Your task to perform on an android device: When is my next meeting? Image 0: 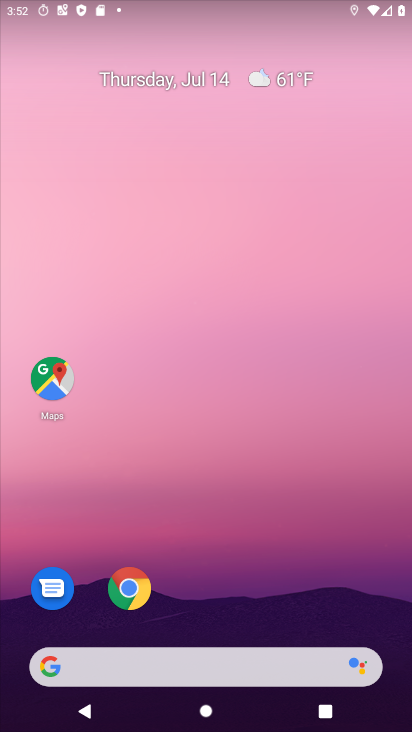
Step 0: drag from (249, 673) to (212, 119)
Your task to perform on an android device: When is my next meeting? Image 1: 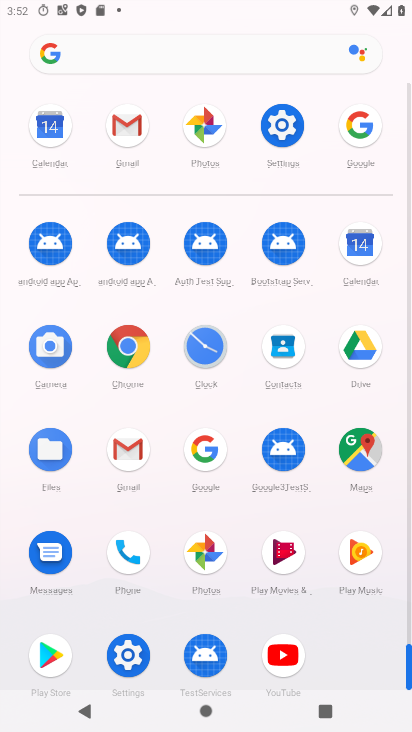
Step 1: click (360, 244)
Your task to perform on an android device: When is my next meeting? Image 2: 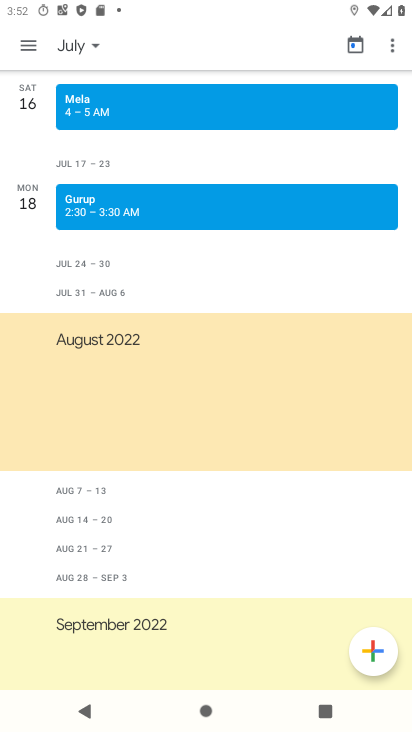
Step 2: click (353, 41)
Your task to perform on an android device: When is my next meeting? Image 3: 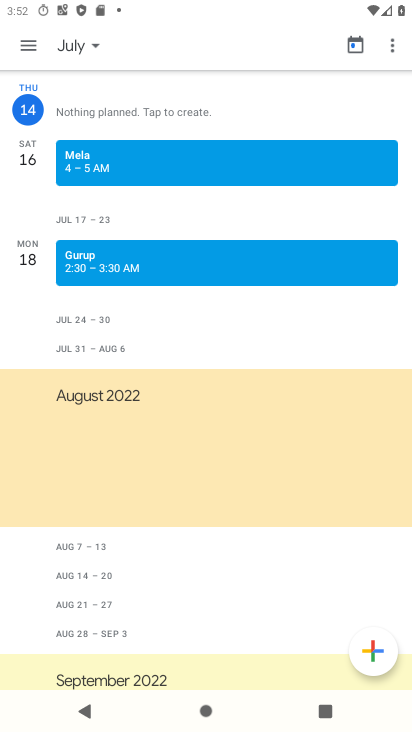
Step 3: click (90, 52)
Your task to perform on an android device: When is my next meeting? Image 4: 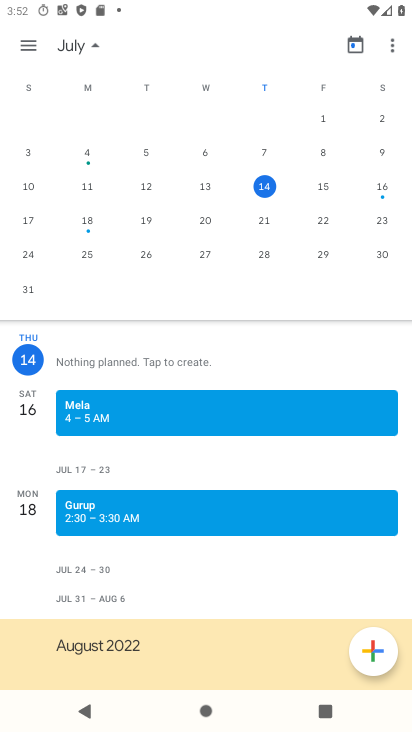
Step 4: click (379, 187)
Your task to perform on an android device: When is my next meeting? Image 5: 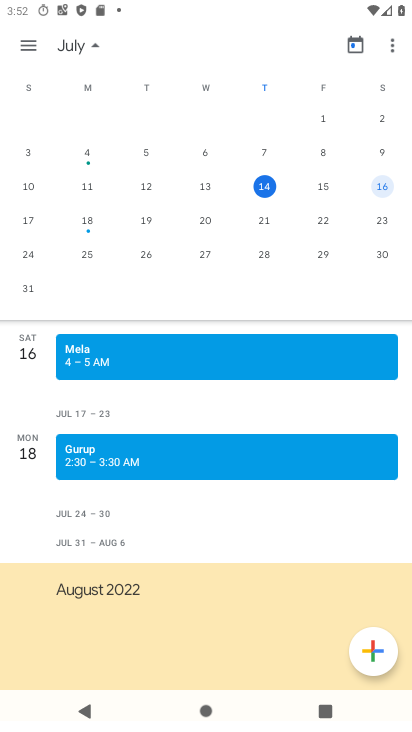
Step 5: click (25, 48)
Your task to perform on an android device: When is my next meeting? Image 6: 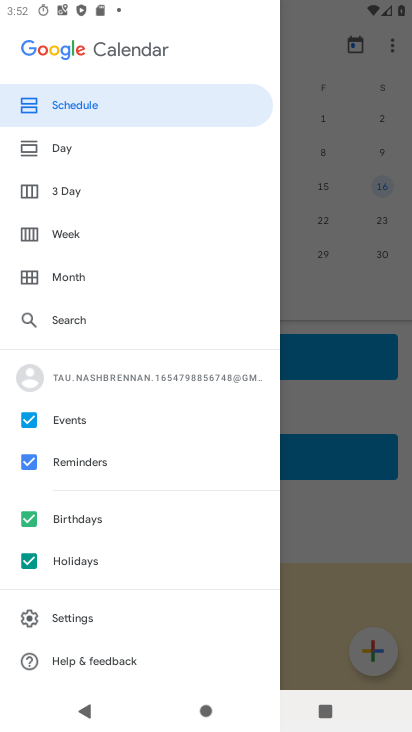
Step 6: click (82, 110)
Your task to perform on an android device: When is my next meeting? Image 7: 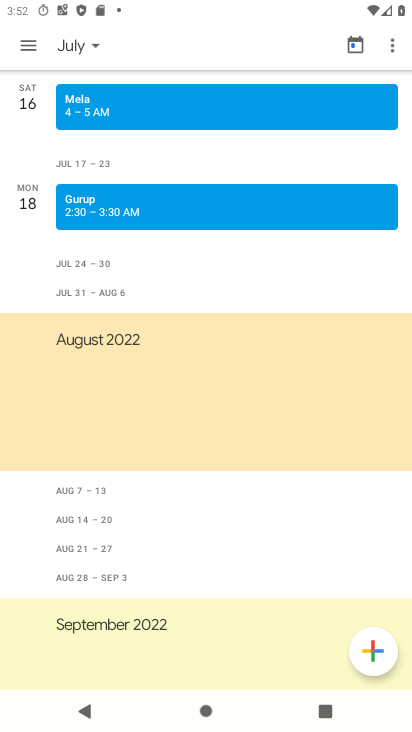
Step 7: task complete